Your task to perform on an android device: empty trash in google photos Image 0: 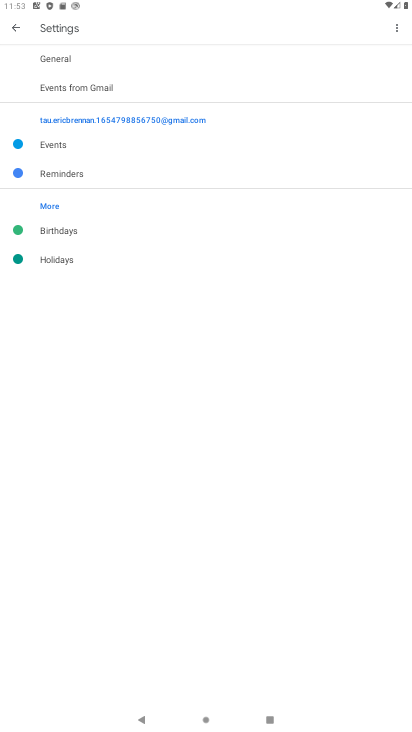
Step 0: press home button
Your task to perform on an android device: empty trash in google photos Image 1: 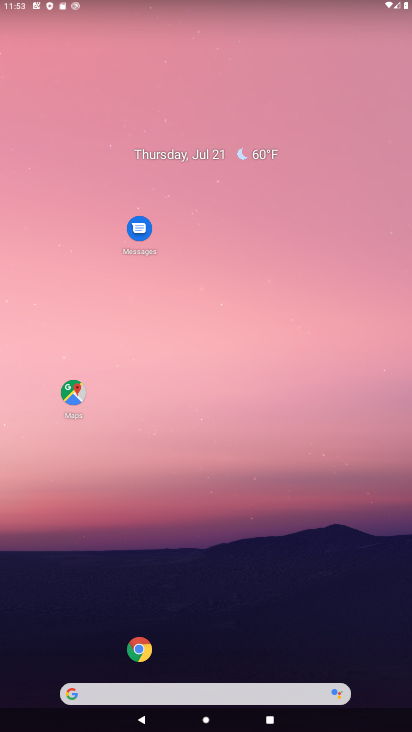
Step 1: drag from (227, 150) to (339, 0)
Your task to perform on an android device: empty trash in google photos Image 2: 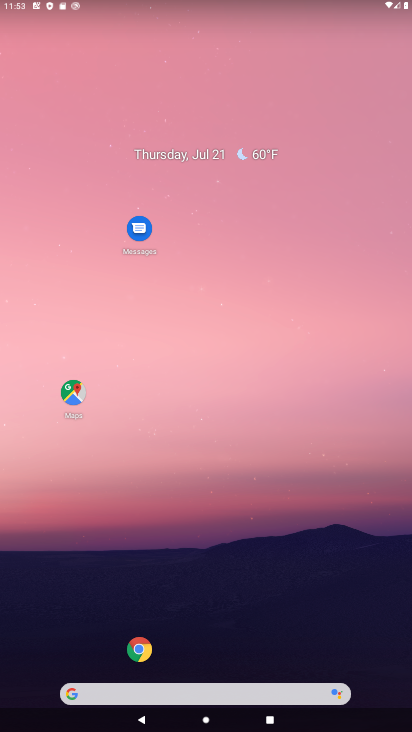
Step 2: drag from (24, 667) to (117, 291)
Your task to perform on an android device: empty trash in google photos Image 3: 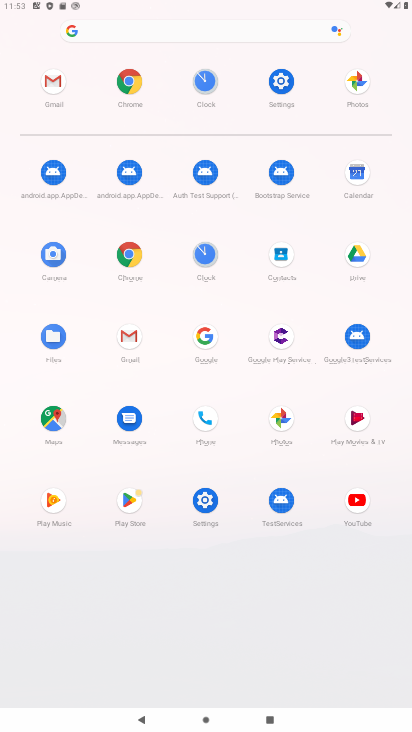
Step 3: click (283, 419)
Your task to perform on an android device: empty trash in google photos Image 4: 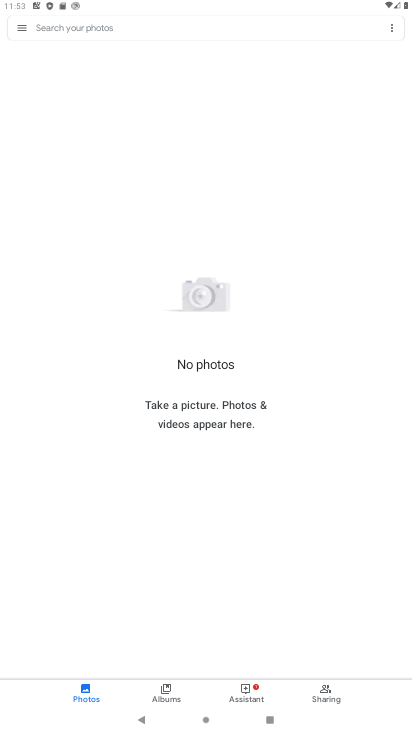
Step 4: click (29, 22)
Your task to perform on an android device: empty trash in google photos Image 5: 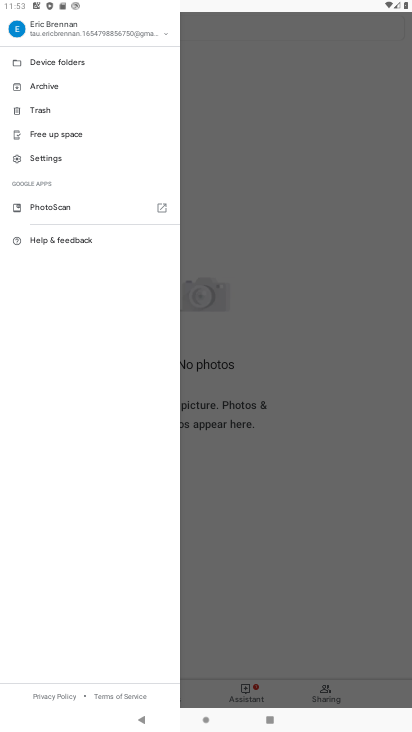
Step 5: click (40, 103)
Your task to perform on an android device: empty trash in google photos Image 6: 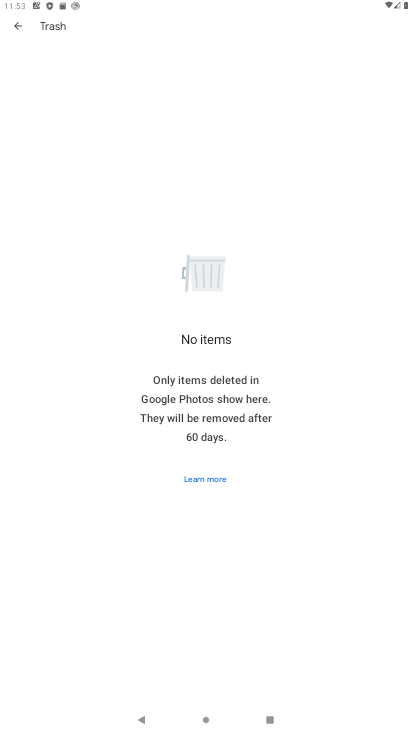
Step 6: task complete